Your task to perform on an android device: Open battery settings Image 0: 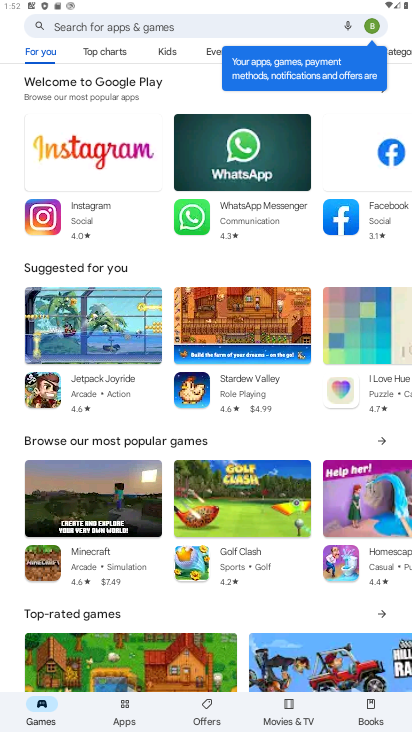
Step 0: press home button
Your task to perform on an android device: Open battery settings Image 1: 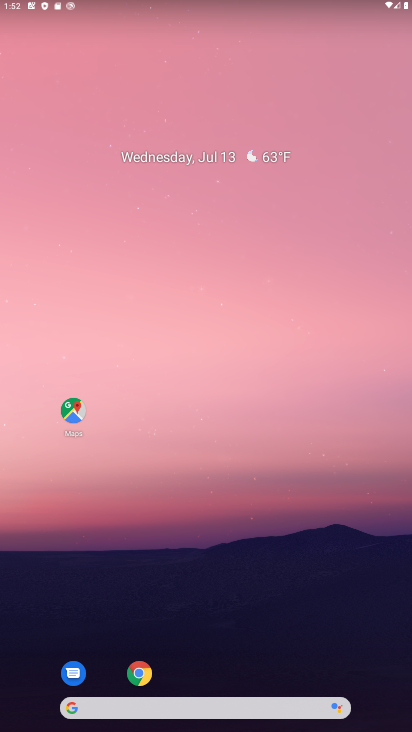
Step 1: drag from (271, 651) to (263, 96)
Your task to perform on an android device: Open battery settings Image 2: 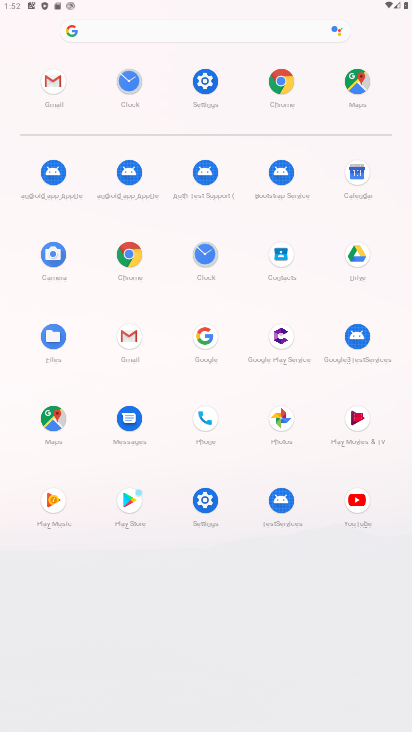
Step 2: click (211, 82)
Your task to perform on an android device: Open battery settings Image 3: 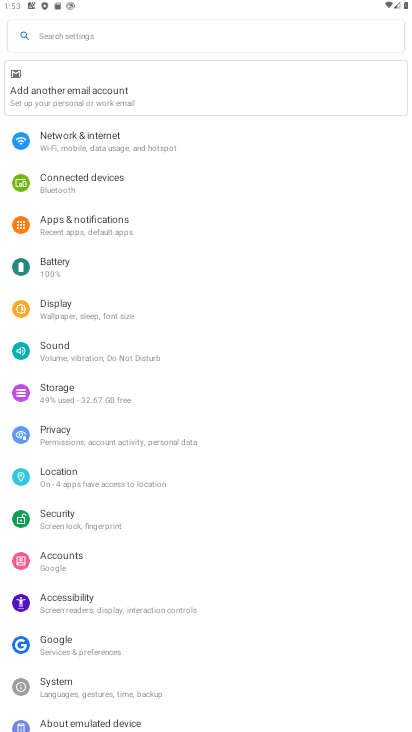
Step 3: click (91, 262)
Your task to perform on an android device: Open battery settings Image 4: 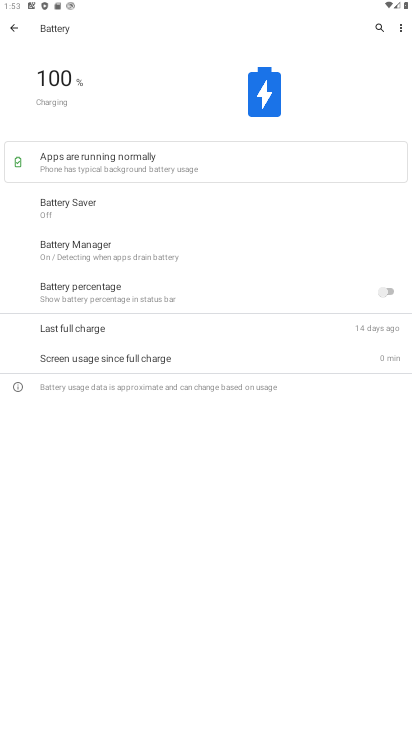
Step 4: task complete